Your task to perform on an android device: Open calendar and show me the second week of next month Image 0: 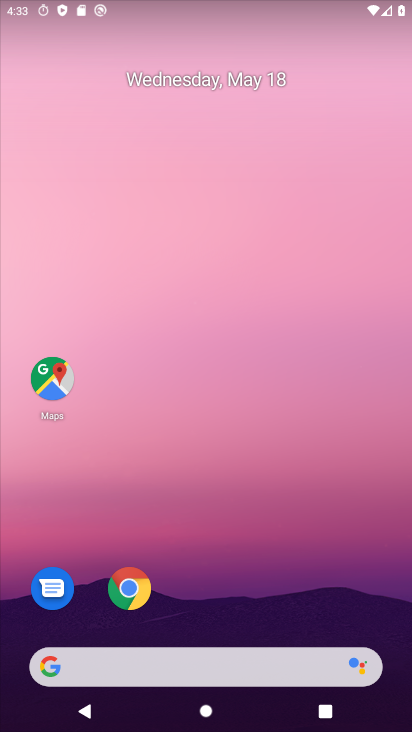
Step 0: drag from (245, 580) to (244, 103)
Your task to perform on an android device: Open calendar and show me the second week of next month Image 1: 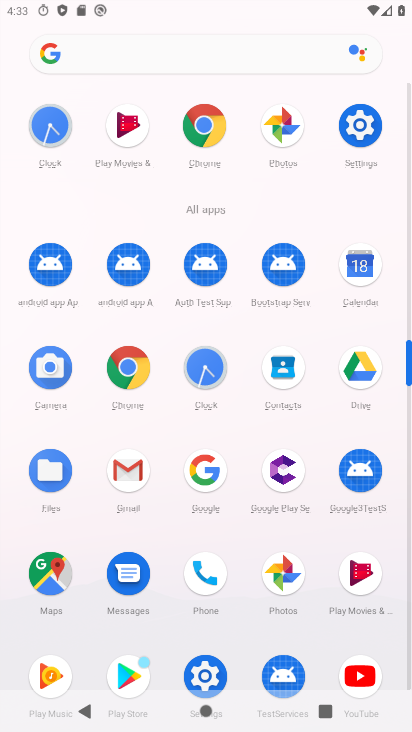
Step 1: click (366, 257)
Your task to perform on an android device: Open calendar and show me the second week of next month Image 2: 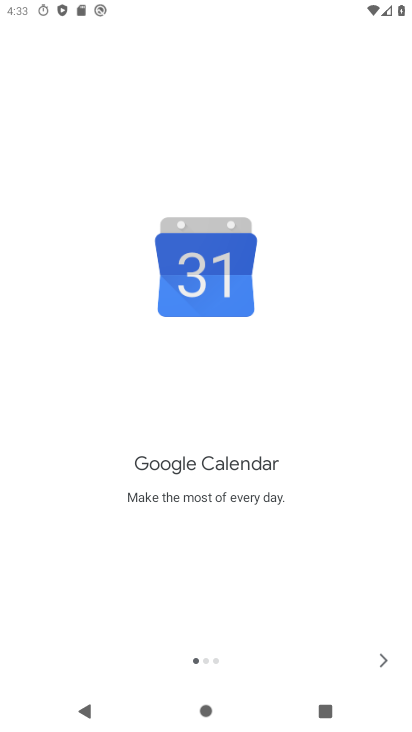
Step 2: click (385, 666)
Your task to perform on an android device: Open calendar and show me the second week of next month Image 3: 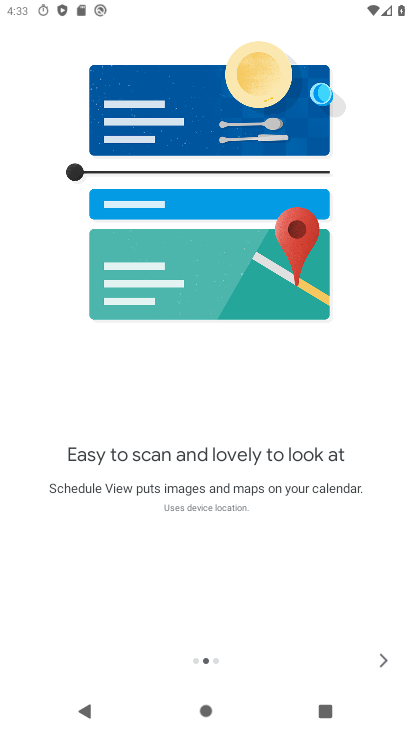
Step 3: click (385, 666)
Your task to perform on an android device: Open calendar and show me the second week of next month Image 4: 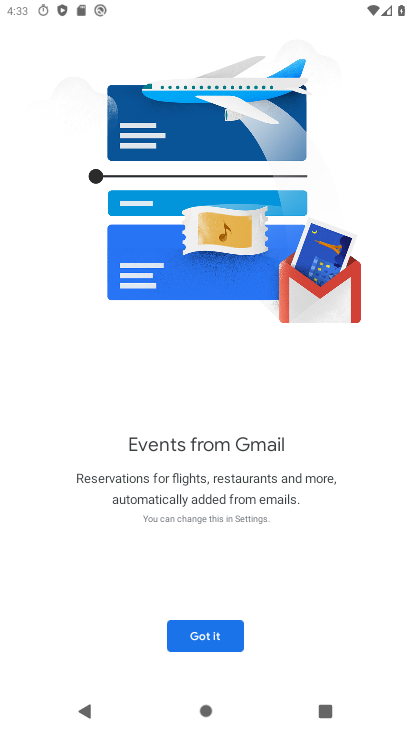
Step 4: click (180, 632)
Your task to perform on an android device: Open calendar and show me the second week of next month Image 5: 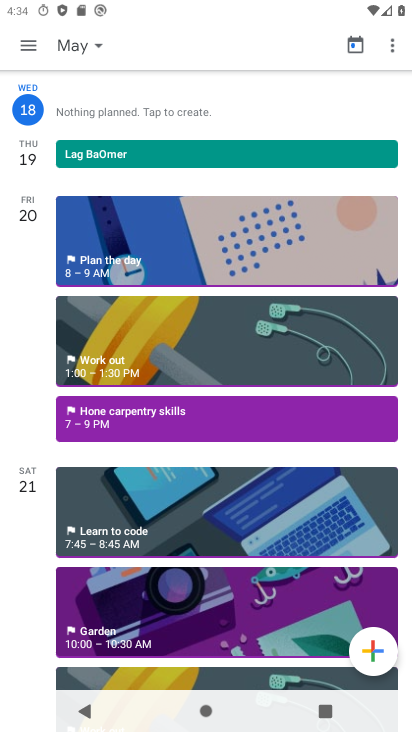
Step 5: click (96, 47)
Your task to perform on an android device: Open calendar and show me the second week of next month Image 6: 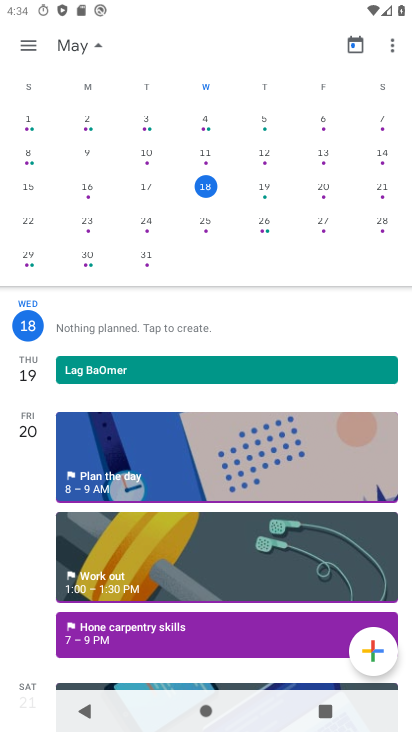
Step 6: drag from (347, 165) to (33, 151)
Your task to perform on an android device: Open calendar and show me the second week of next month Image 7: 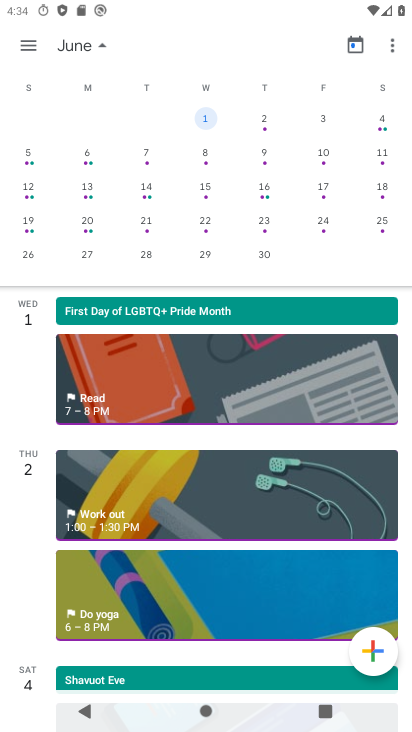
Step 7: click (327, 156)
Your task to perform on an android device: Open calendar and show me the second week of next month Image 8: 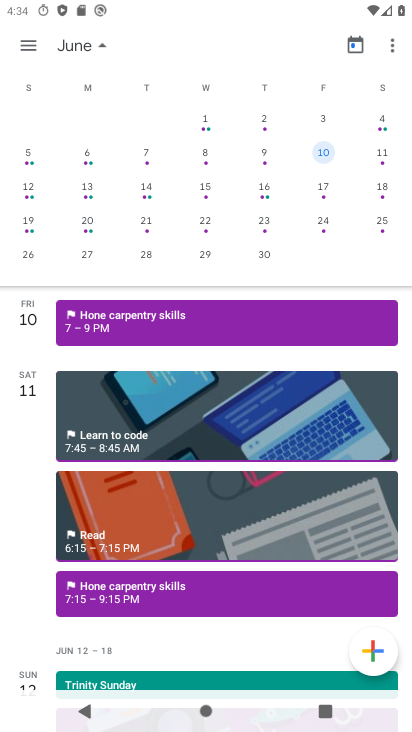
Step 8: click (318, 149)
Your task to perform on an android device: Open calendar and show me the second week of next month Image 9: 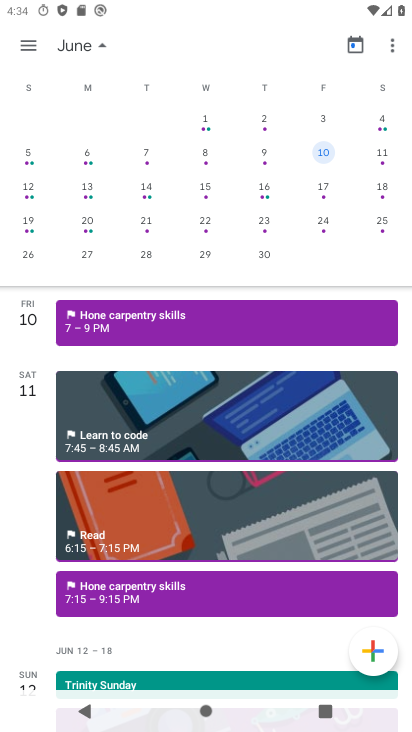
Step 9: task complete